Your task to perform on an android device: change the clock style Image 0: 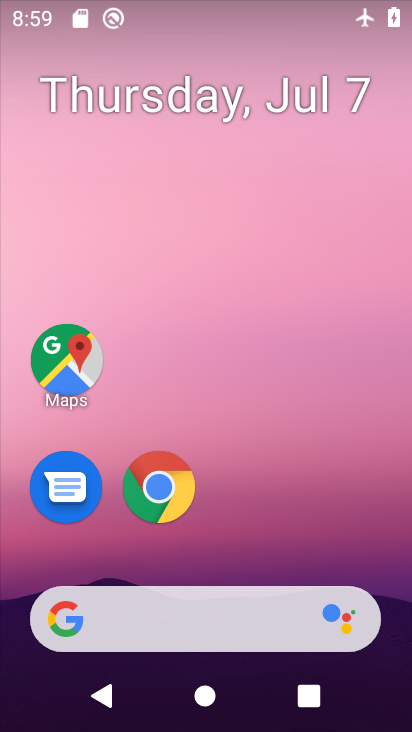
Step 0: drag from (368, 533) to (374, 114)
Your task to perform on an android device: change the clock style Image 1: 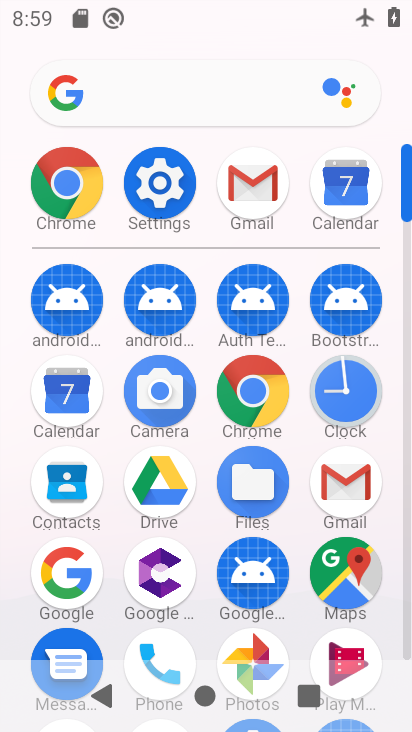
Step 1: click (339, 390)
Your task to perform on an android device: change the clock style Image 2: 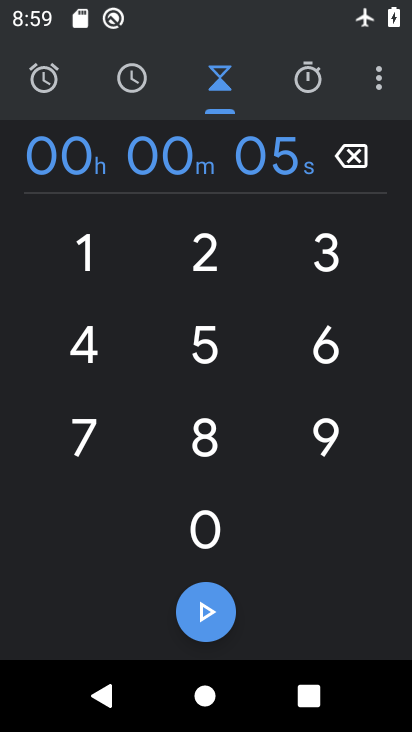
Step 2: click (380, 92)
Your task to perform on an android device: change the clock style Image 3: 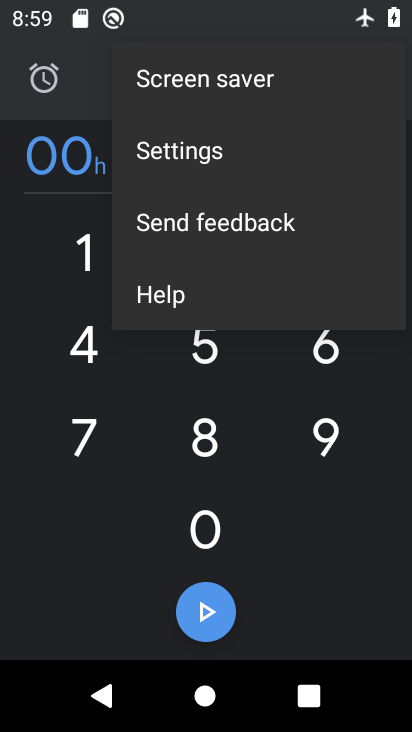
Step 3: click (212, 155)
Your task to perform on an android device: change the clock style Image 4: 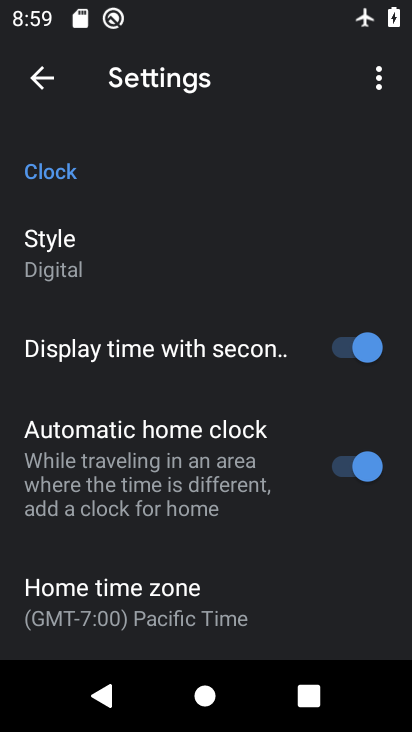
Step 4: drag from (288, 518) to (305, 409)
Your task to perform on an android device: change the clock style Image 5: 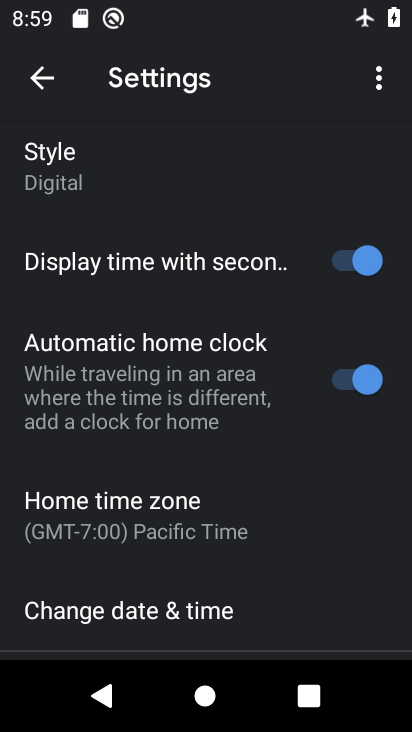
Step 5: drag from (285, 579) to (309, 395)
Your task to perform on an android device: change the clock style Image 6: 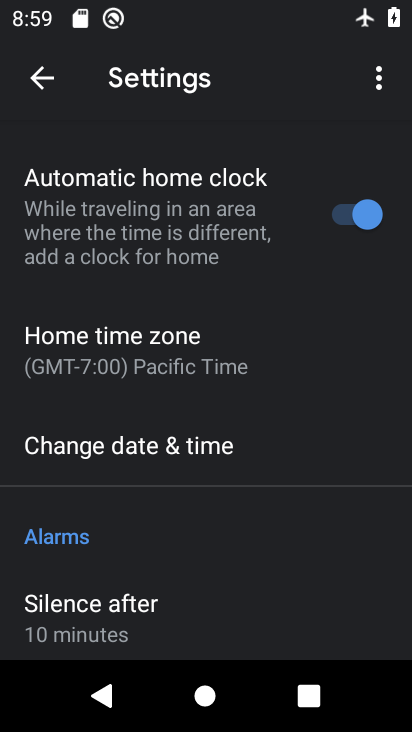
Step 6: drag from (303, 546) to (326, 328)
Your task to perform on an android device: change the clock style Image 7: 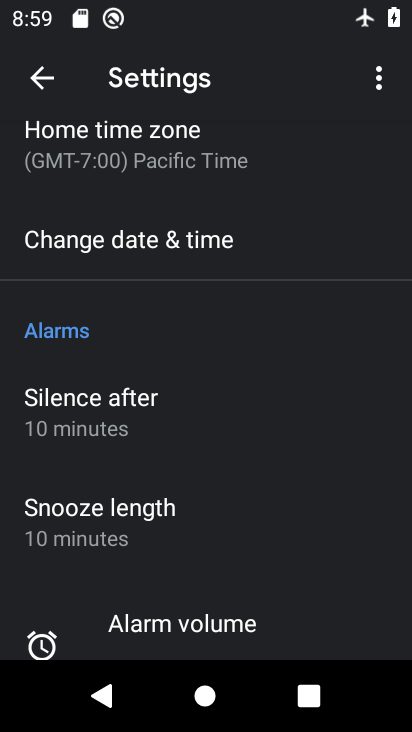
Step 7: drag from (296, 468) to (303, 341)
Your task to perform on an android device: change the clock style Image 8: 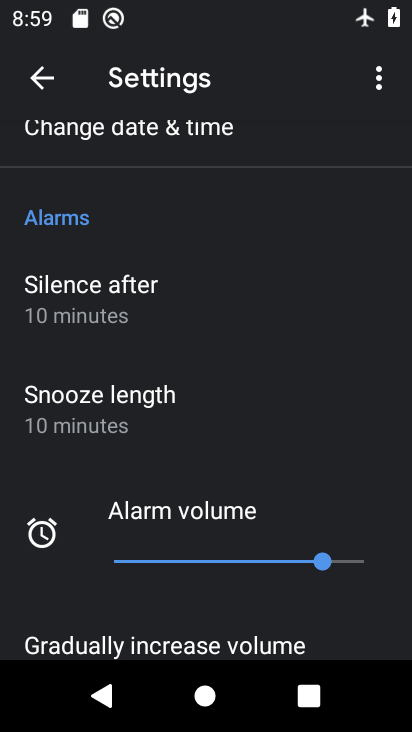
Step 8: drag from (304, 471) to (311, 344)
Your task to perform on an android device: change the clock style Image 9: 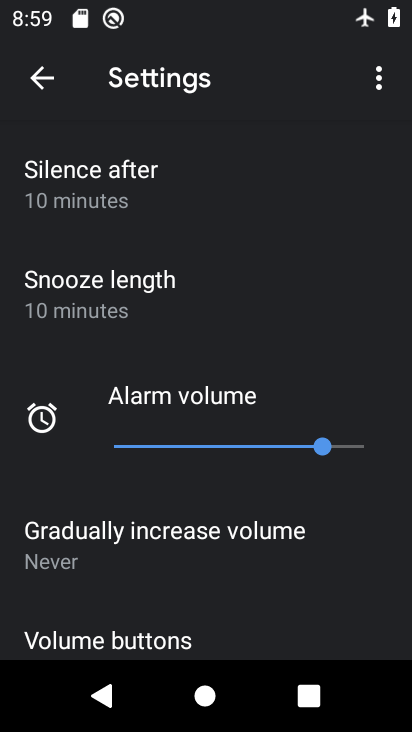
Step 9: drag from (327, 512) to (332, 358)
Your task to perform on an android device: change the clock style Image 10: 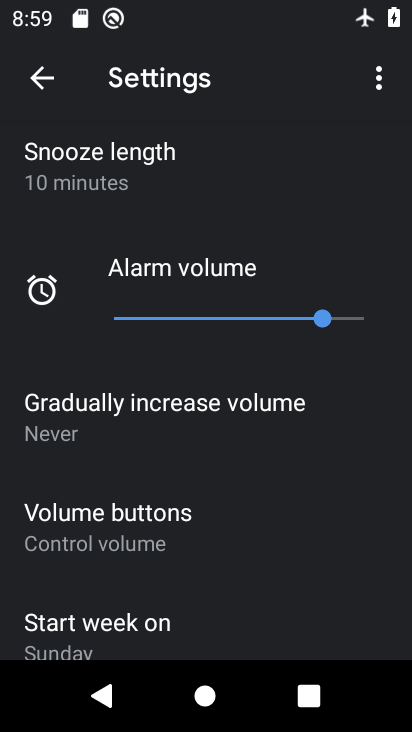
Step 10: drag from (317, 470) to (320, 366)
Your task to perform on an android device: change the clock style Image 11: 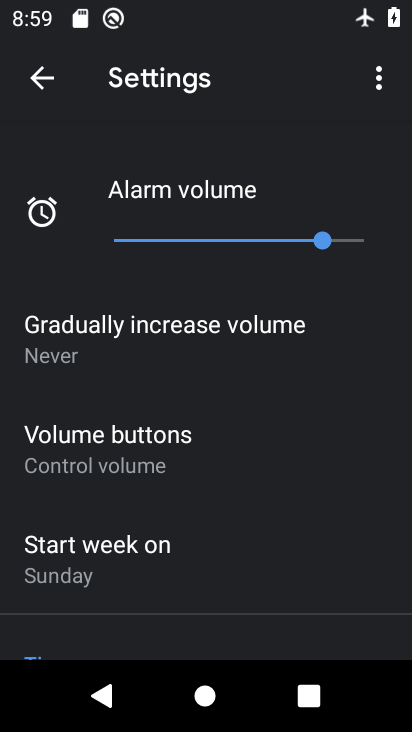
Step 11: drag from (305, 501) to (316, 363)
Your task to perform on an android device: change the clock style Image 12: 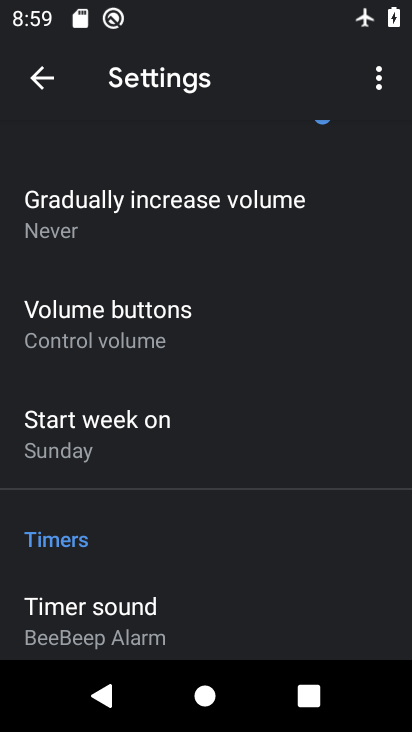
Step 12: drag from (317, 312) to (312, 400)
Your task to perform on an android device: change the clock style Image 13: 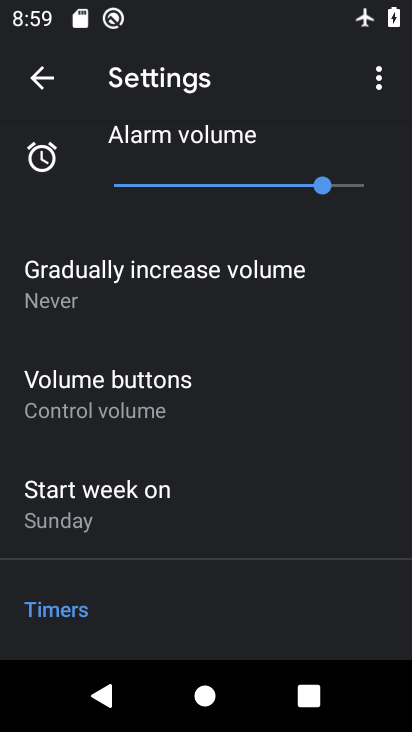
Step 13: drag from (341, 255) to (350, 336)
Your task to perform on an android device: change the clock style Image 14: 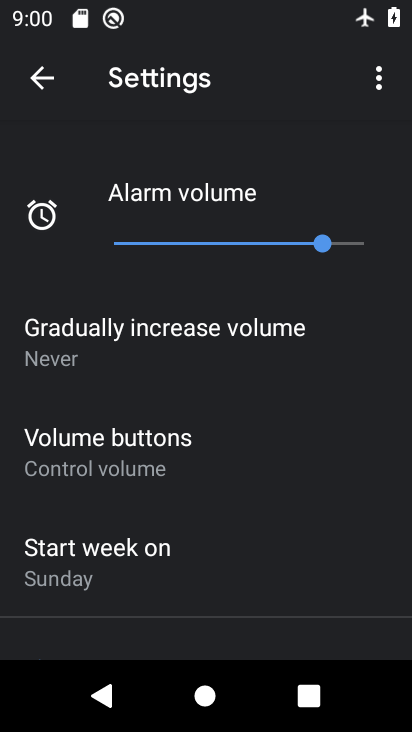
Step 14: drag from (348, 215) to (347, 340)
Your task to perform on an android device: change the clock style Image 15: 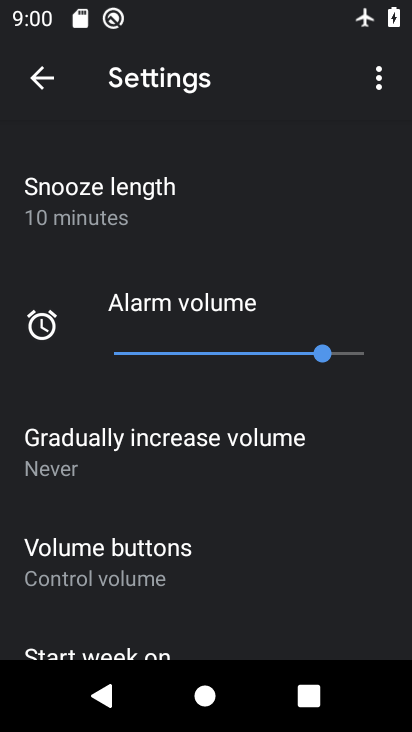
Step 15: drag from (344, 178) to (344, 312)
Your task to perform on an android device: change the clock style Image 16: 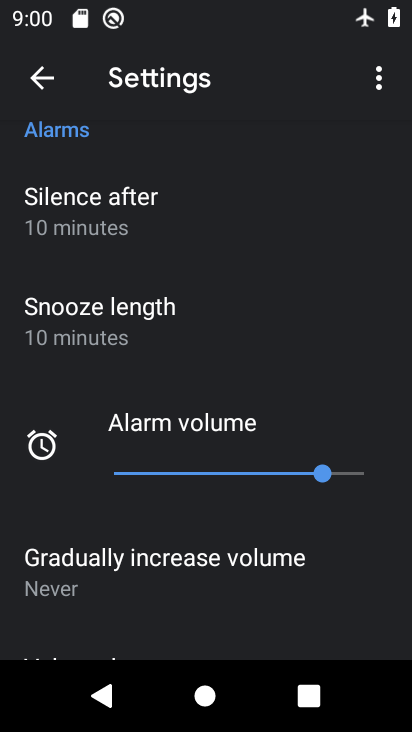
Step 16: drag from (335, 204) to (341, 303)
Your task to perform on an android device: change the clock style Image 17: 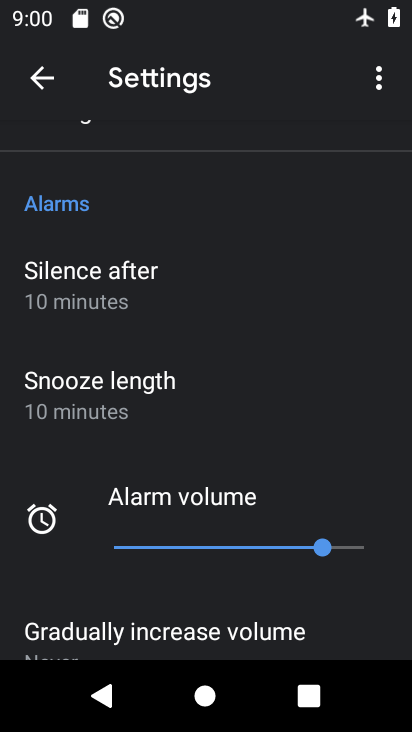
Step 17: drag from (324, 188) to (326, 293)
Your task to perform on an android device: change the clock style Image 18: 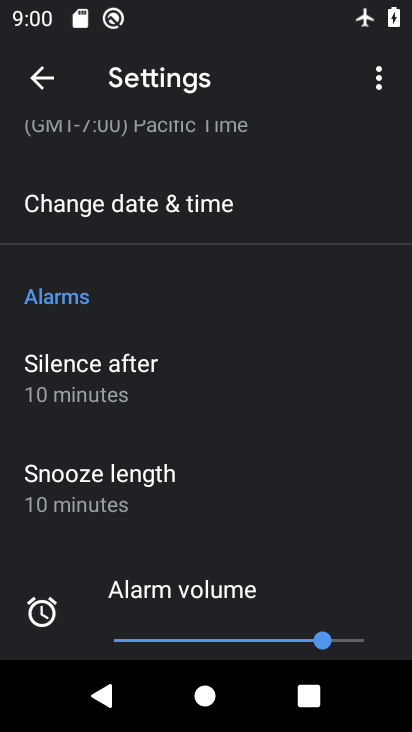
Step 18: drag from (330, 194) to (330, 335)
Your task to perform on an android device: change the clock style Image 19: 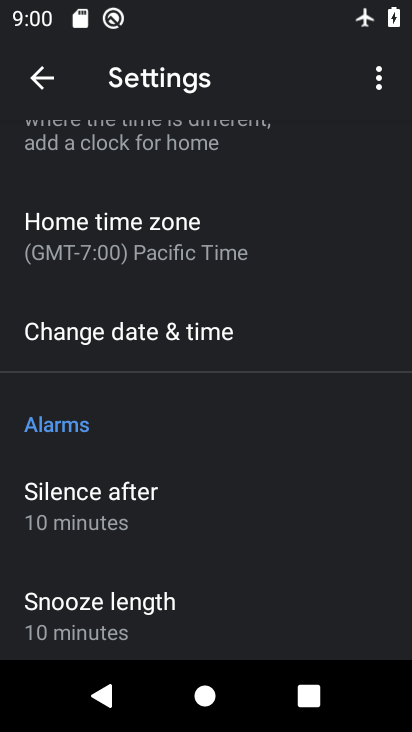
Step 19: drag from (317, 228) to (322, 342)
Your task to perform on an android device: change the clock style Image 20: 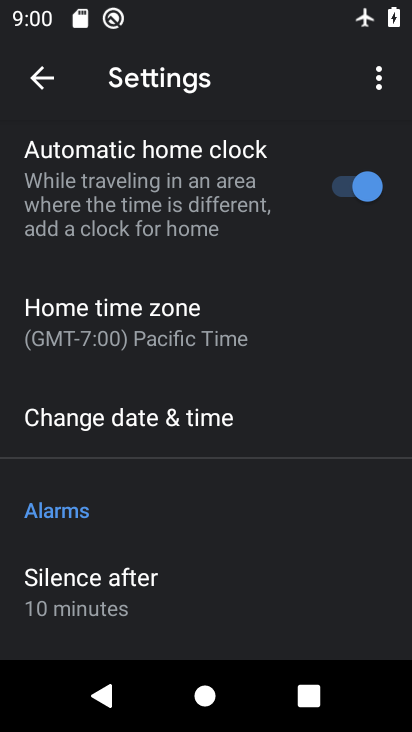
Step 20: drag from (306, 164) to (305, 277)
Your task to perform on an android device: change the clock style Image 21: 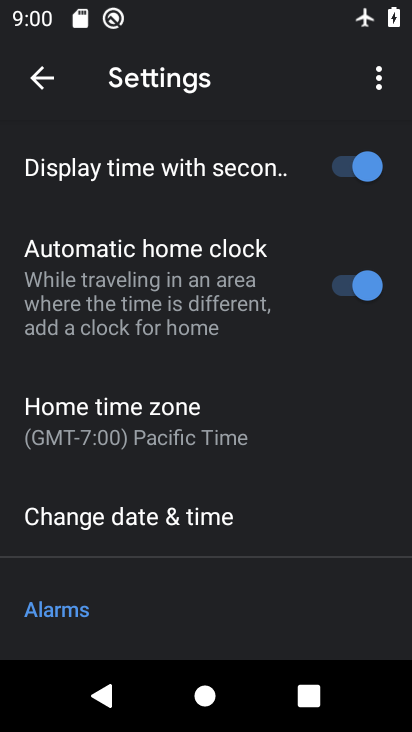
Step 21: drag from (299, 151) to (302, 315)
Your task to perform on an android device: change the clock style Image 22: 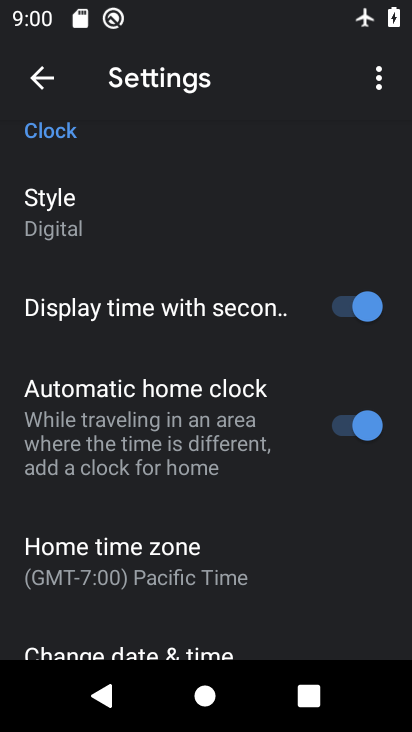
Step 22: click (106, 210)
Your task to perform on an android device: change the clock style Image 23: 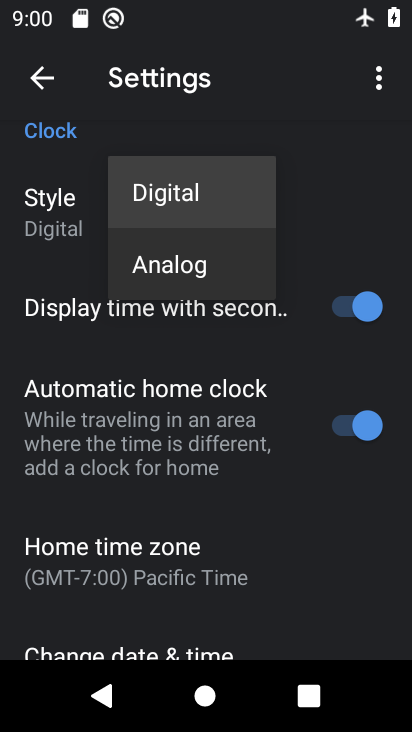
Step 23: click (207, 264)
Your task to perform on an android device: change the clock style Image 24: 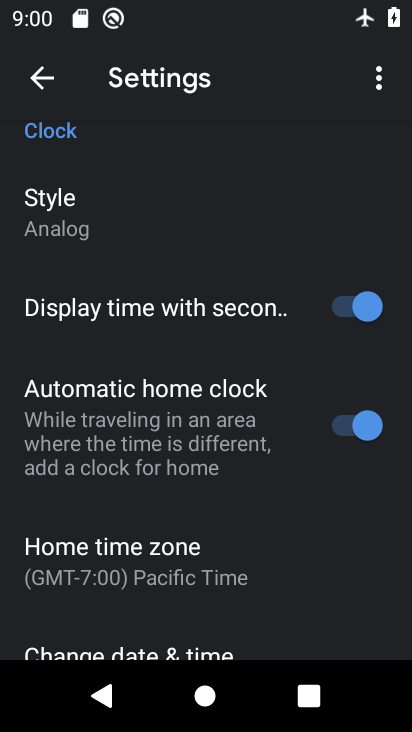
Step 24: task complete